Your task to perform on an android device: refresh tabs in the chrome app Image 0: 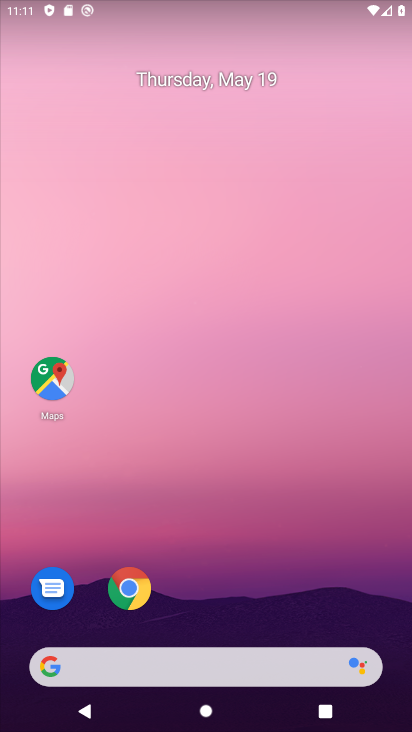
Step 0: drag from (261, 597) to (211, 169)
Your task to perform on an android device: refresh tabs in the chrome app Image 1: 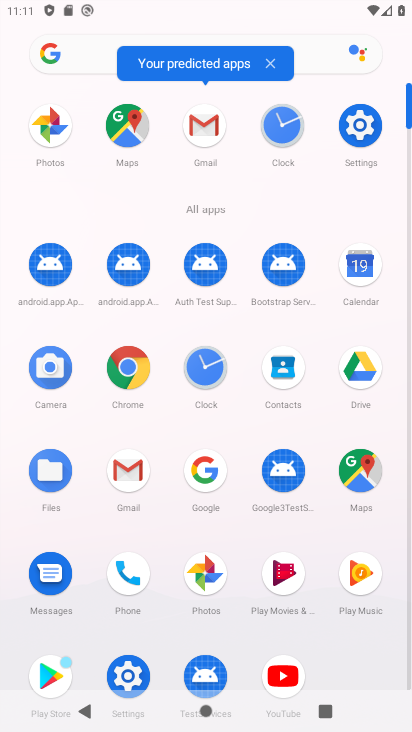
Step 1: click (133, 368)
Your task to perform on an android device: refresh tabs in the chrome app Image 2: 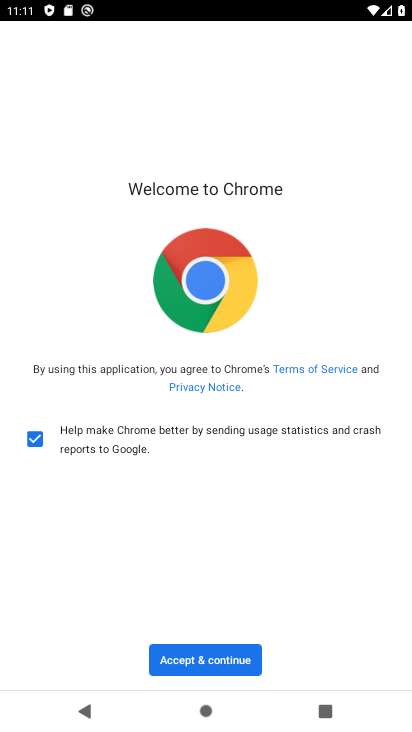
Step 2: click (236, 669)
Your task to perform on an android device: refresh tabs in the chrome app Image 3: 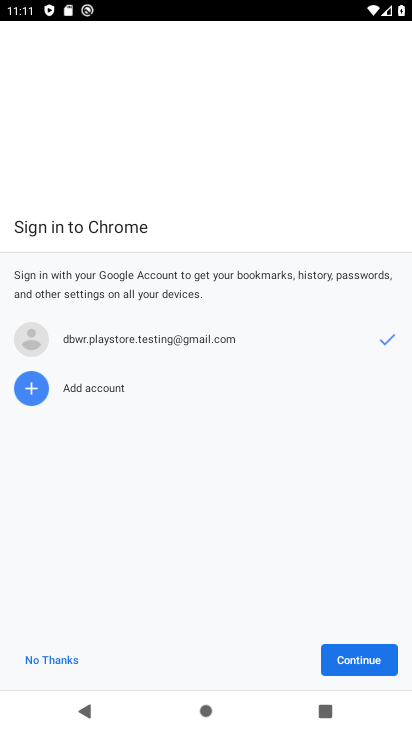
Step 3: click (52, 663)
Your task to perform on an android device: refresh tabs in the chrome app Image 4: 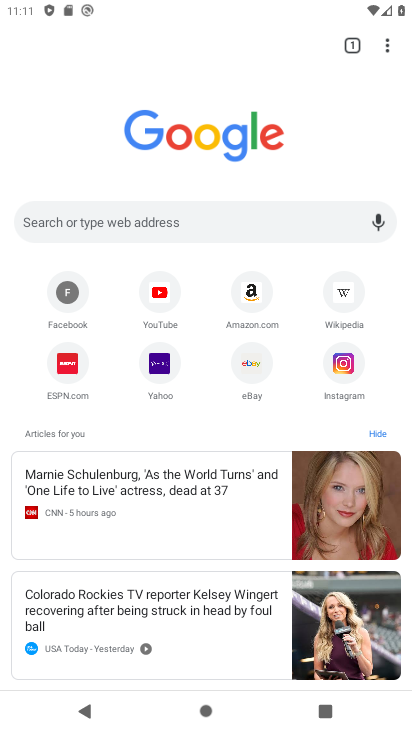
Step 4: click (387, 35)
Your task to perform on an android device: refresh tabs in the chrome app Image 5: 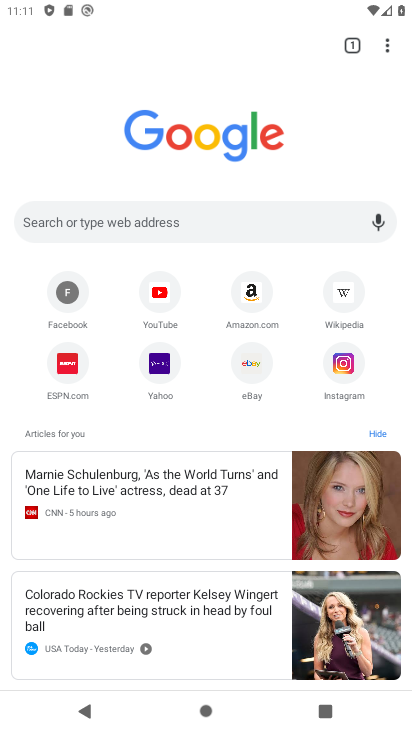
Step 5: task complete